Your task to perform on an android device: Turn on the flashlight Image 0: 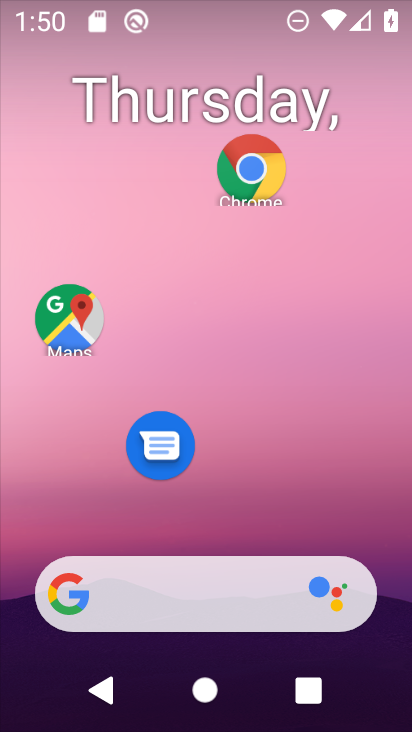
Step 0: drag from (264, 642) to (270, 160)
Your task to perform on an android device: Turn on the flashlight Image 1: 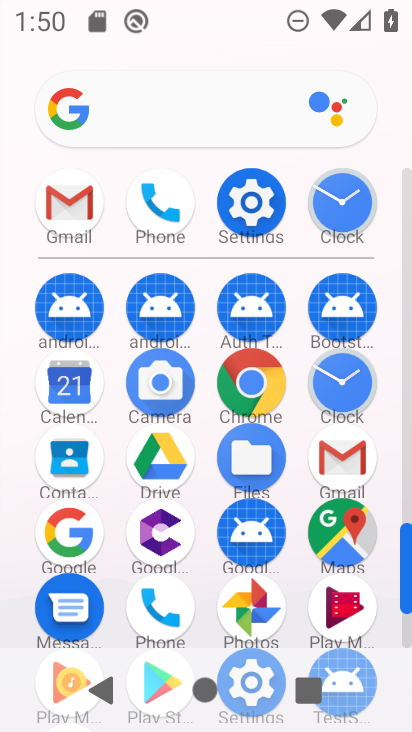
Step 1: click (242, 208)
Your task to perform on an android device: Turn on the flashlight Image 2: 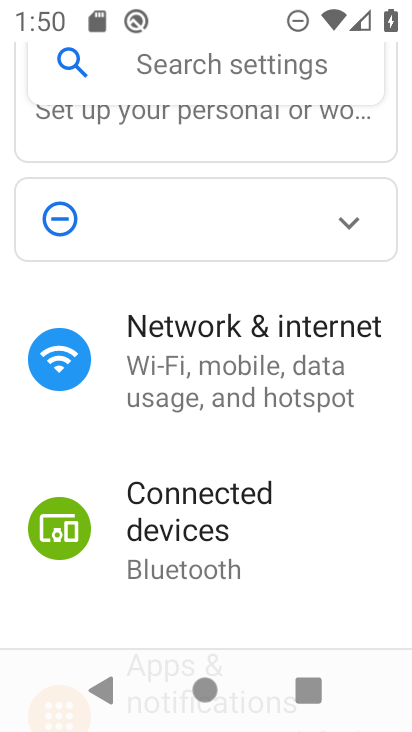
Step 2: click (167, 88)
Your task to perform on an android device: Turn on the flashlight Image 3: 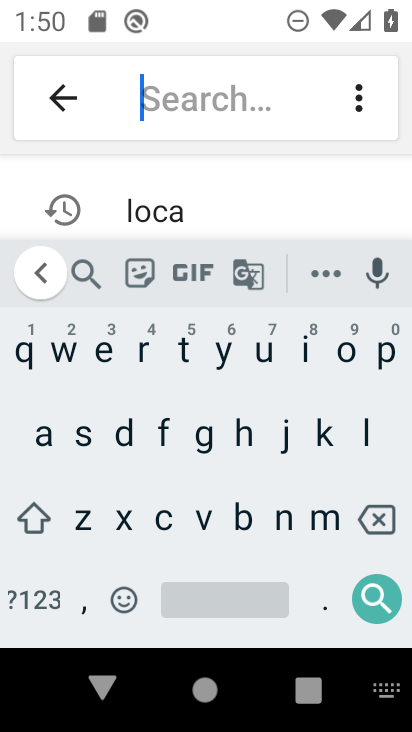
Step 3: click (164, 438)
Your task to perform on an android device: Turn on the flashlight Image 4: 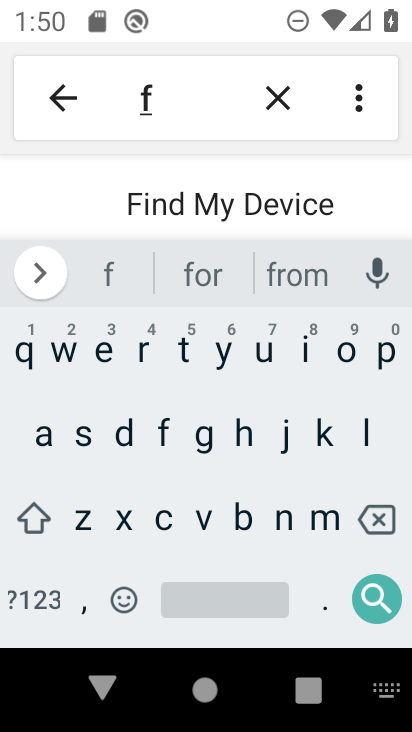
Step 4: click (367, 430)
Your task to perform on an android device: Turn on the flashlight Image 5: 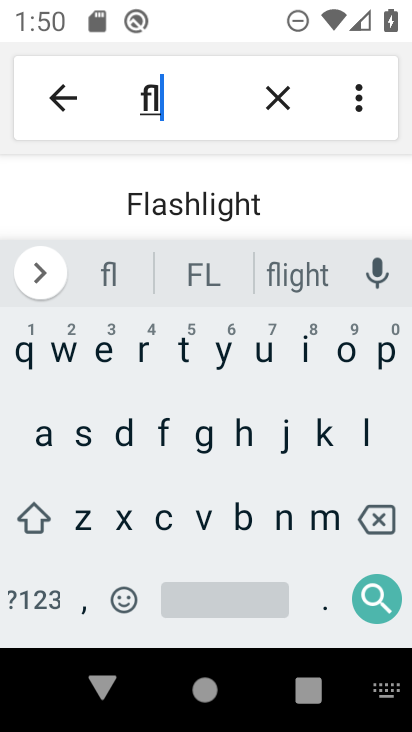
Step 5: click (174, 202)
Your task to perform on an android device: Turn on the flashlight Image 6: 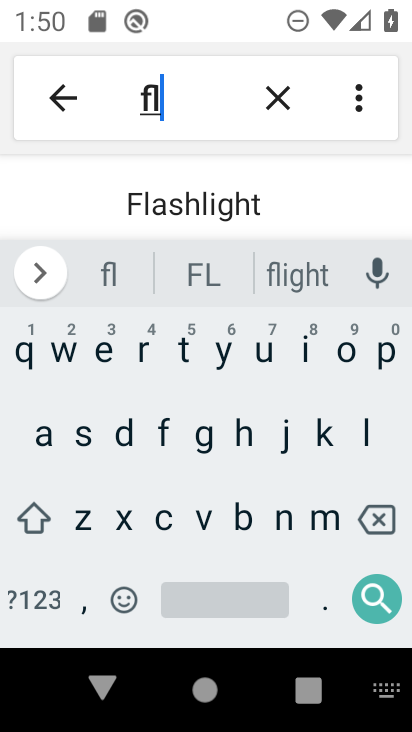
Step 6: task complete